Your task to perform on an android device: change timer sound Image 0: 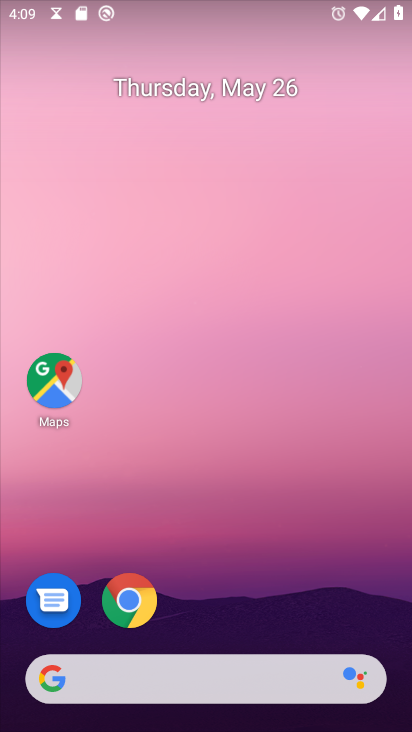
Step 0: drag from (216, 635) to (257, 198)
Your task to perform on an android device: change timer sound Image 1: 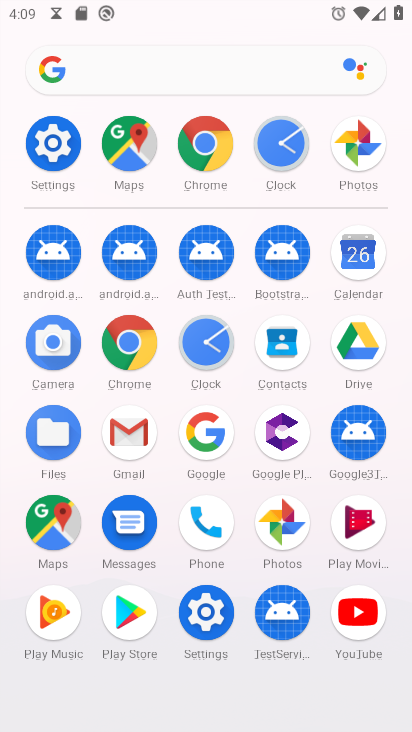
Step 1: click (198, 610)
Your task to perform on an android device: change timer sound Image 2: 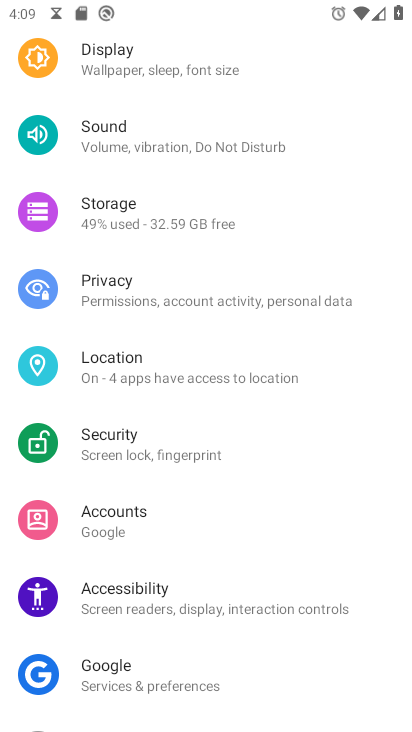
Step 2: press home button
Your task to perform on an android device: change timer sound Image 3: 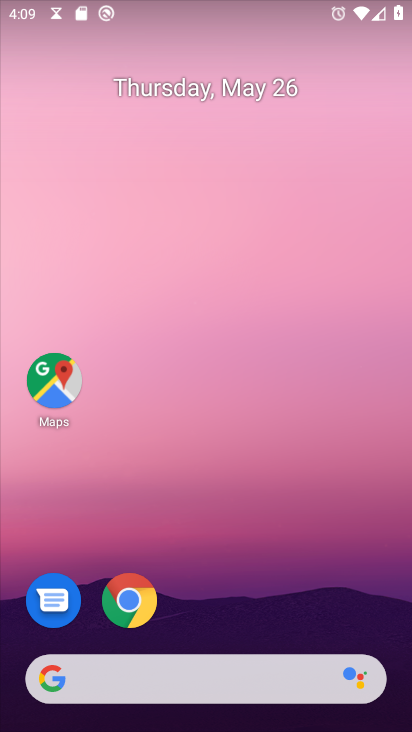
Step 3: drag from (185, 608) to (239, 178)
Your task to perform on an android device: change timer sound Image 4: 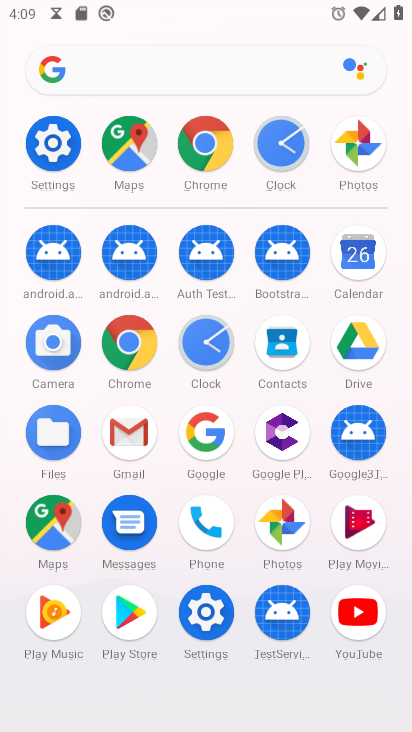
Step 4: click (210, 346)
Your task to perform on an android device: change timer sound Image 5: 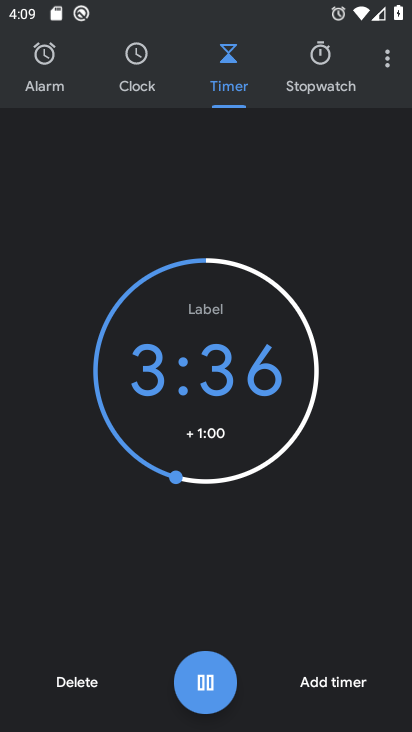
Step 5: click (389, 70)
Your task to perform on an android device: change timer sound Image 6: 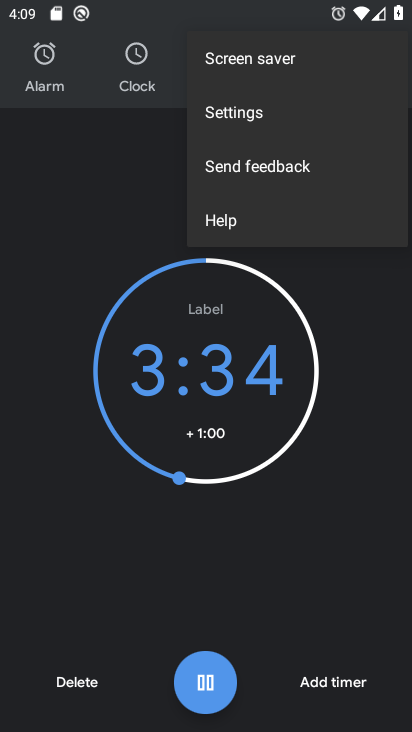
Step 6: click (255, 126)
Your task to perform on an android device: change timer sound Image 7: 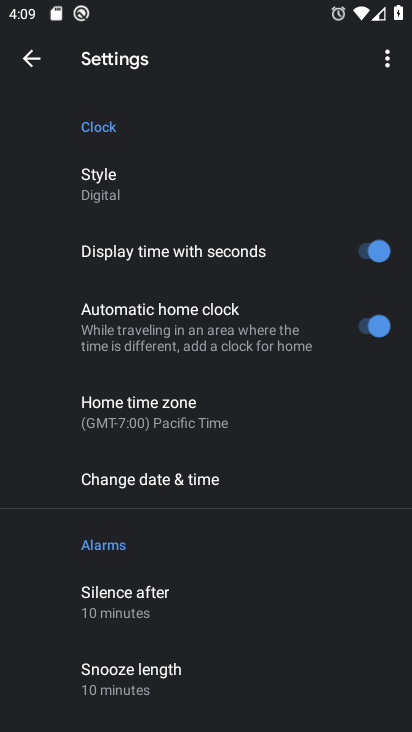
Step 7: drag from (154, 510) to (170, 387)
Your task to perform on an android device: change timer sound Image 8: 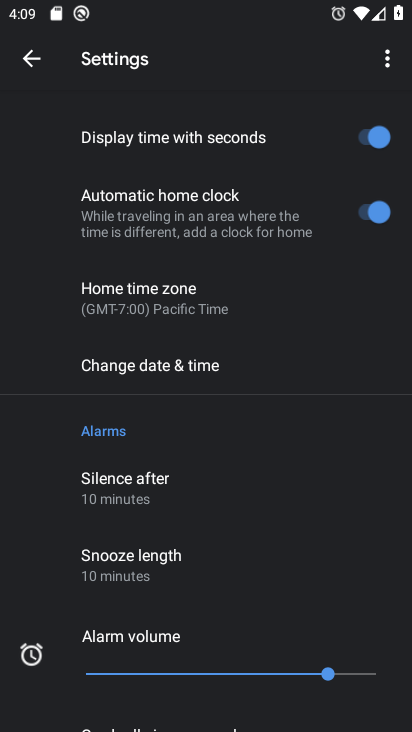
Step 8: drag from (134, 558) to (154, 454)
Your task to perform on an android device: change timer sound Image 9: 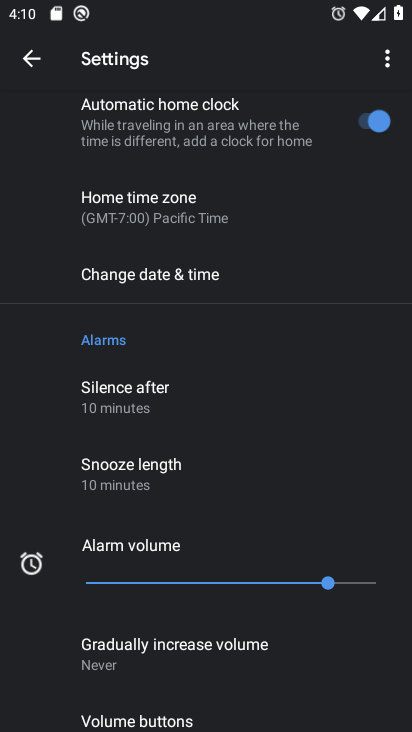
Step 9: drag from (161, 574) to (225, 347)
Your task to perform on an android device: change timer sound Image 10: 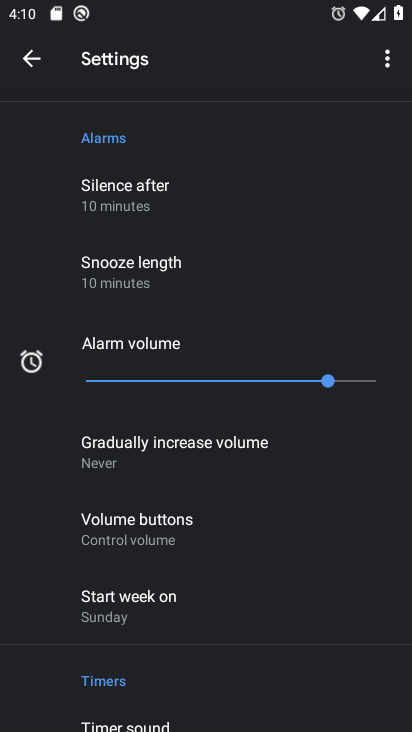
Step 10: drag from (204, 570) to (283, 160)
Your task to perform on an android device: change timer sound Image 11: 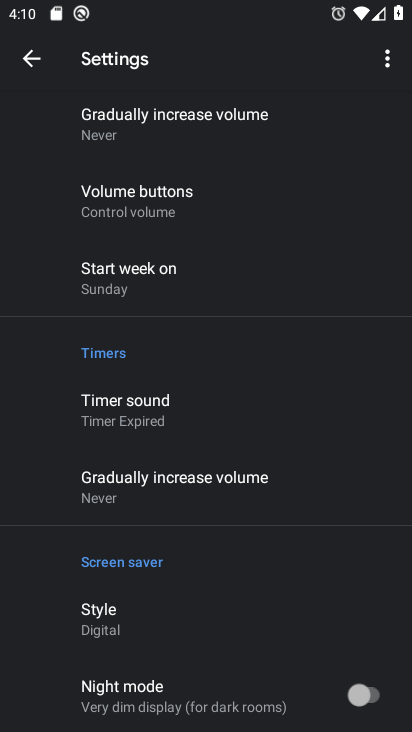
Step 11: click (103, 425)
Your task to perform on an android device: change timer sound Image 12: 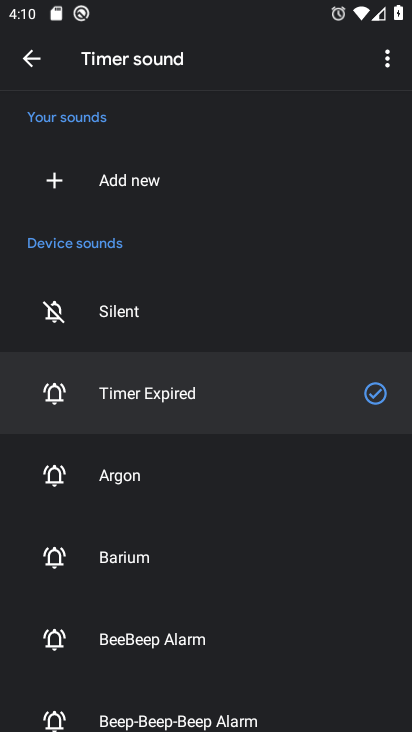
Step 12: click (105, 489)
Your task to perform on an android device: change timer sound Image 13: 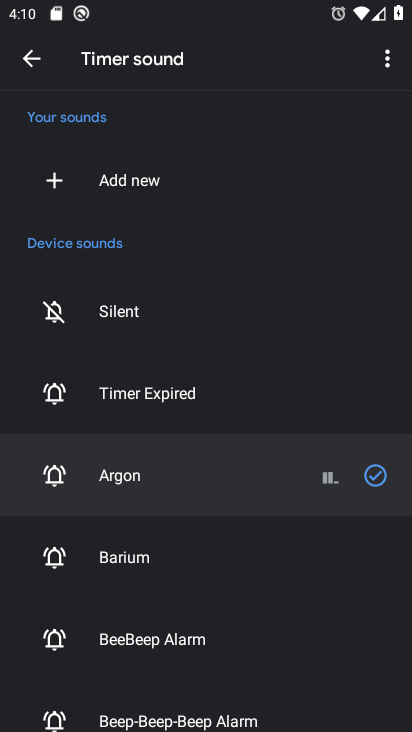
Step 13: task complete